Your task to perform on an android device: turn smart compose on in the gmail app Image 0: 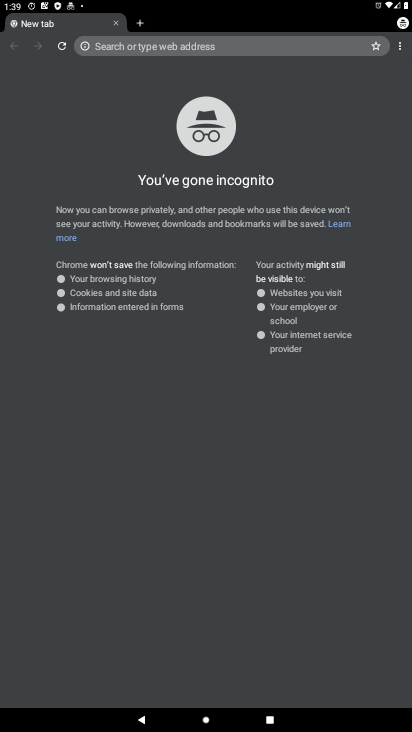
Step 0: press home button
Your task to perform on an android device: turn smart compose on in the gmail app Image 1: 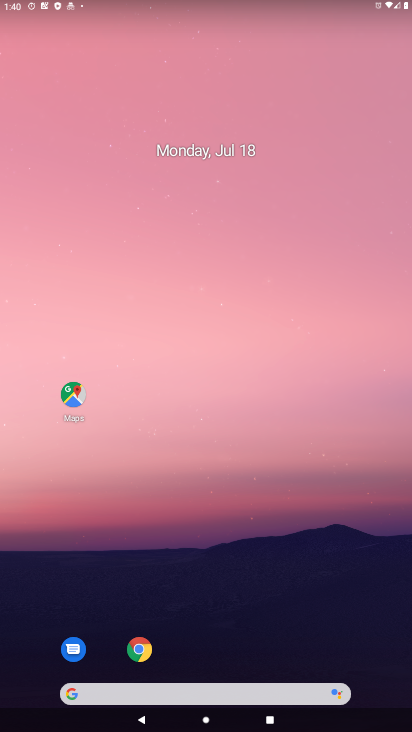
Step 1: drag from (201, 683) to (154, 1)
Your task to perform on an android device: turn smart compose on in the gmail app Image 2: 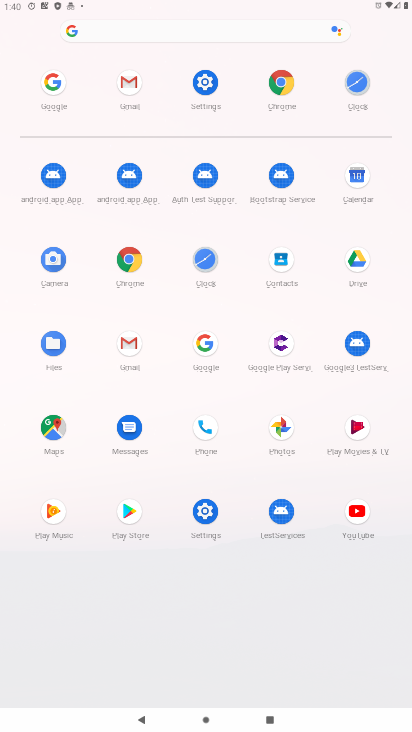
Step 2: click (124, 341)
Your task to perform on an android device: turn smart compose on in the gmail app Image 3: 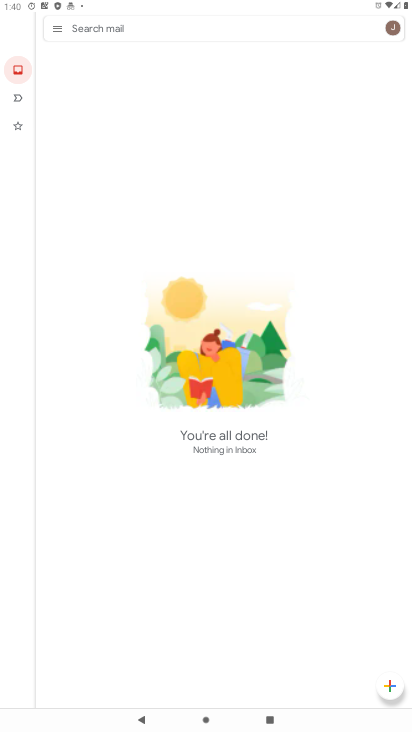
Step 3: drag from (52, 27) to (52, 87)
Your task to perform on an android device: turn smart compose on in the gmail app Image 4: 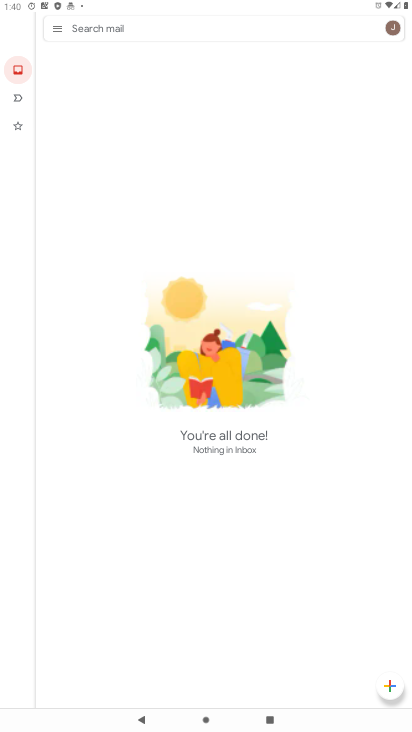
Step 4: click (61, 36)
Your task to perform on an android device: turn smart compose on in the gmail app Image 5: 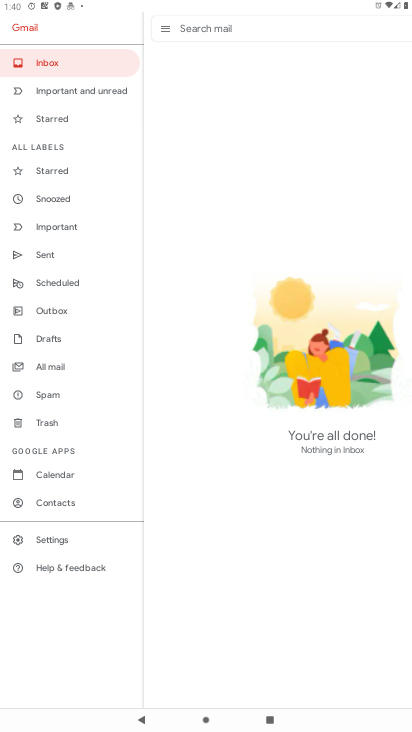
Step 5: click (61, 534)
Your task to perform on an android device: turn smart compose on in the gmail app Image 6: 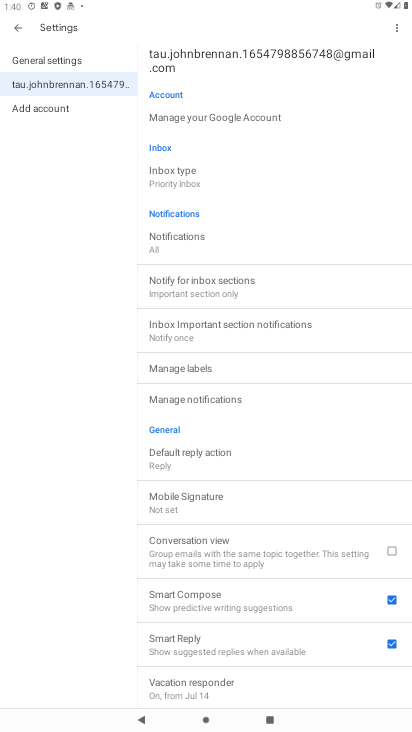
Step 6: task complete